Your task to perform on an android device: What's the weather today? Image 0: 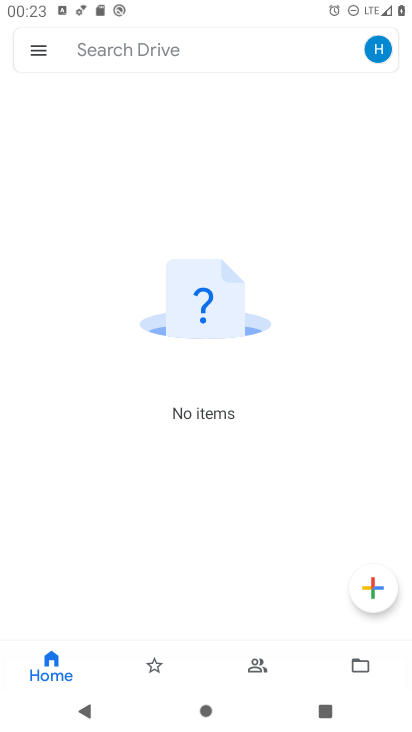
Step 0: press home button
Your task to perform on an android device: What's the weather today? Image 1: 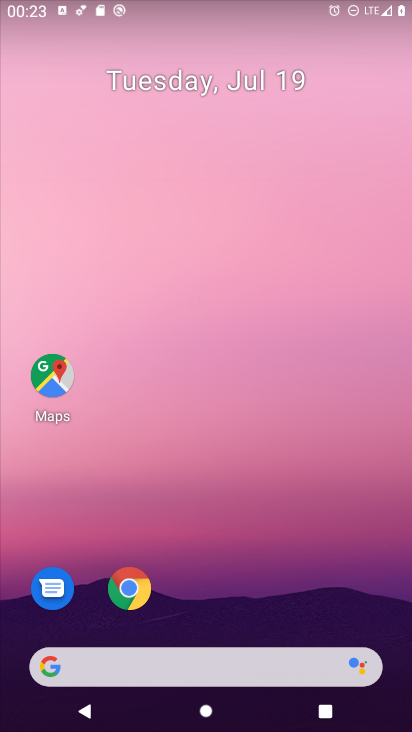
Step 1: drag from (3, 263) to (395, 303)
Your task to perform on an android device: What's the weather today? Image 2: 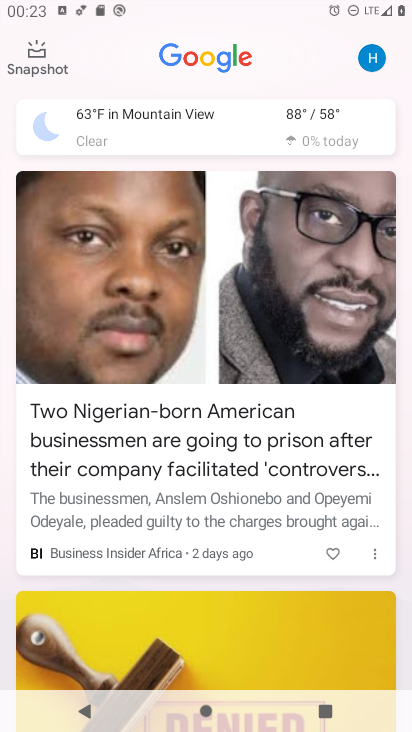
Step 2: click (294, 113)
Your task to perform on an android device: What's the weather today? Image 3: 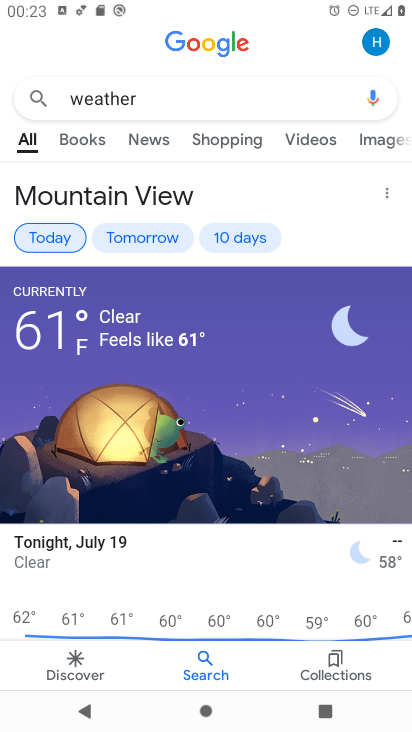
Step 3: task complete